Your task to perform on an android device: star an email in the gmail app Image 0: 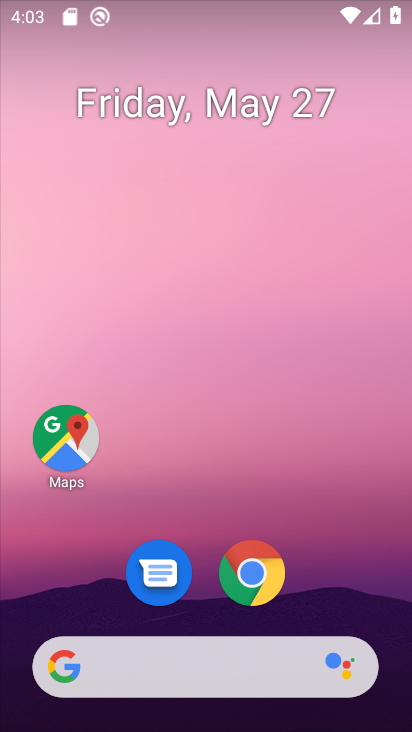
Step 0: drag from (312, 510) to (254, 76)
Your task to perform on an android device: star an email in the gmail app Image 1: 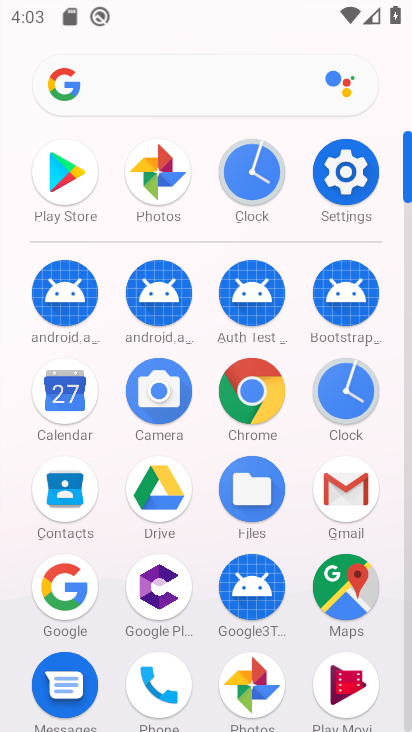
Step 1: click (344, 489)
Your task to perform on an android device: star an email in the gmail app Image 2: 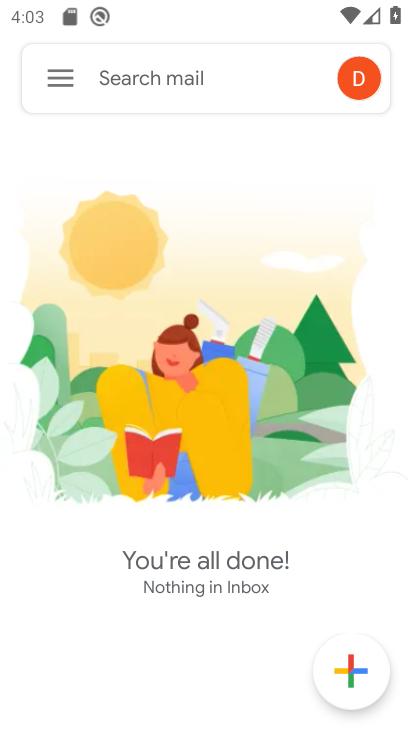
Step 2: click (57, 68)
Your task to perform on an android device: star an email in the gmail app Image 3: 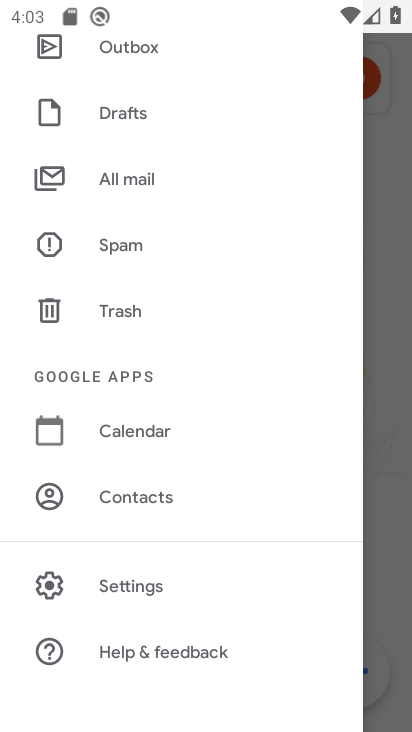
Step 3: click (141, 165)
Your task to perform on an android device: star an email in the gmail app Image 4: 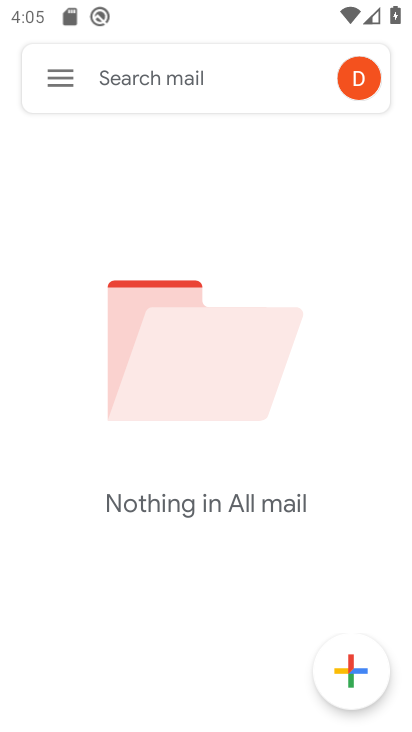
Step 4: task complete